Your task to perform on an android device: Is it going to rain today? Image 0: 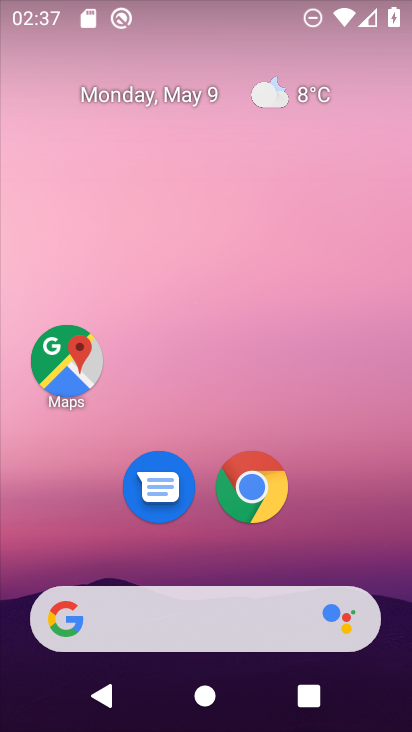
Step 0: click (284, 91)
Your task to perform on an android device: Is it going to rain today? Image 1: 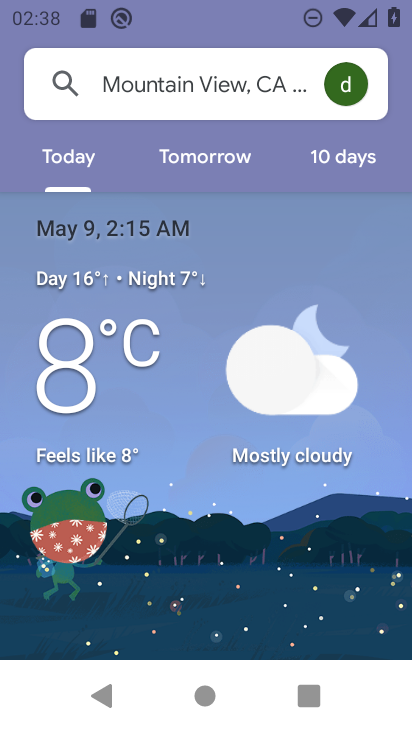
Step 1: task complete